Your task to perform on an android device: turn off javascript in the chrome app Image 0: 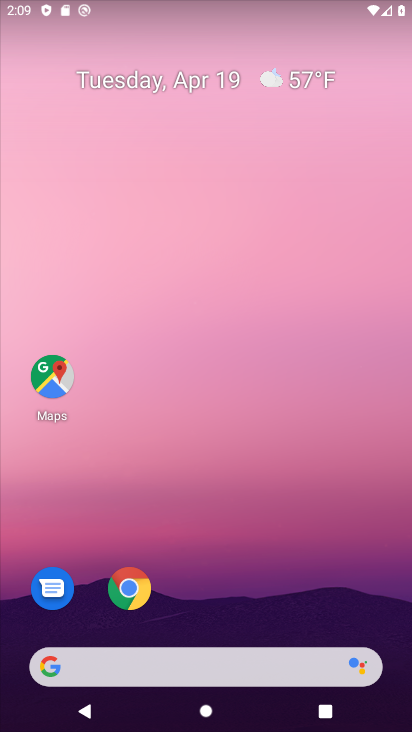
Step 0: click (129, 594)
Your task to perform on an android device: turn off javascript in the chrome app Image 1: 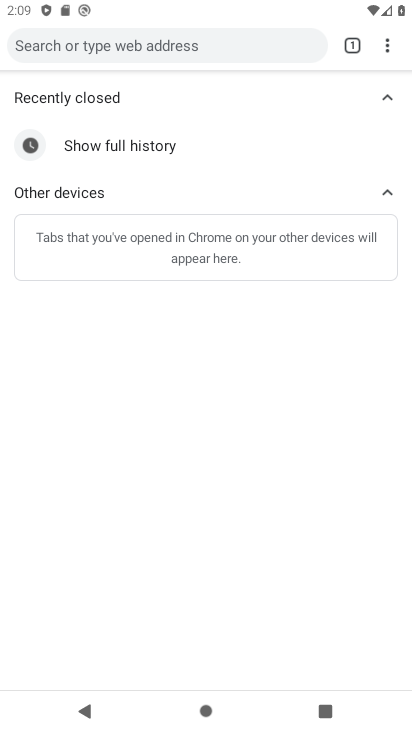
Step 1: click (388, 42)
Your task to perform on an android device: turn off javascript in the chrome app Image 2: 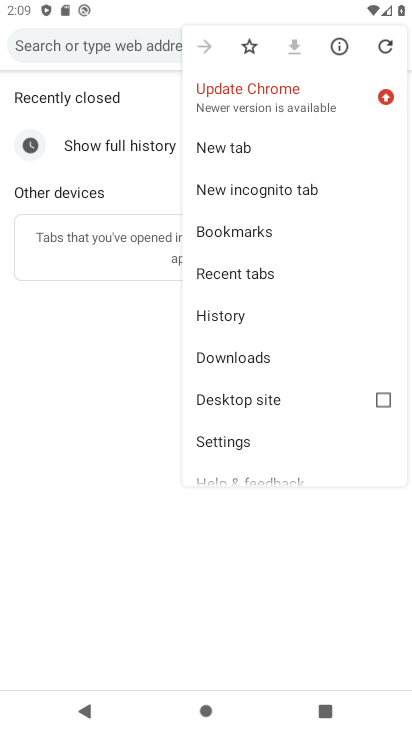
Step 2: click (256, 441)
Your task to perform on an android device: turn off javascript in the chrome app Image 3: 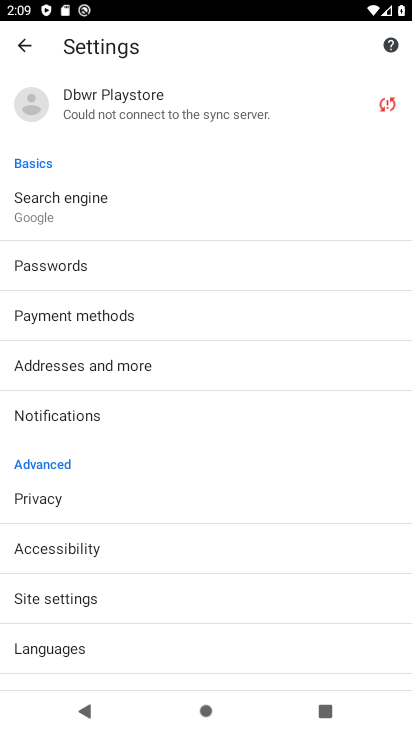
Step 3: click (205, 604)
Your task to perform on an android device: turn off javascript in the chrome app Image 4: 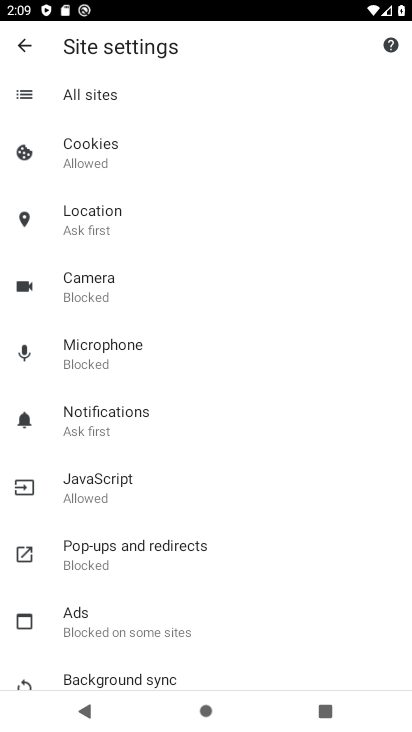
Step 4: click (198, 483)
Your task to perform on an android device: turn off javascript in the chrome app Image 5: 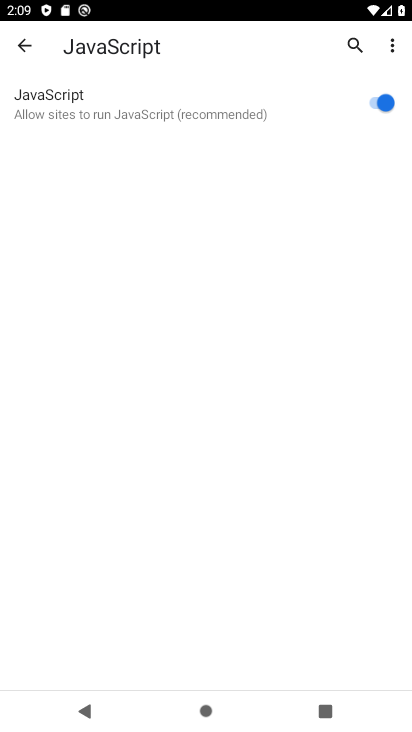
Step 5: click (373, 94)
Your task to perform on an android device: turn off javascript in the chrome app Image 6: 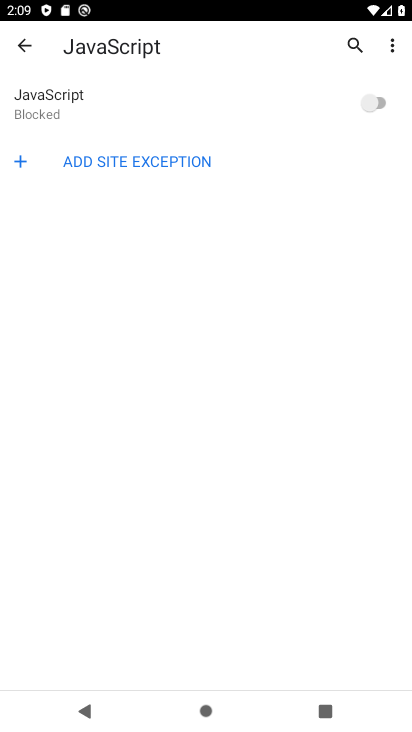
Step 6: task complete